Your task to perform on an android device: clear all cookies in the chrome app Image 0: 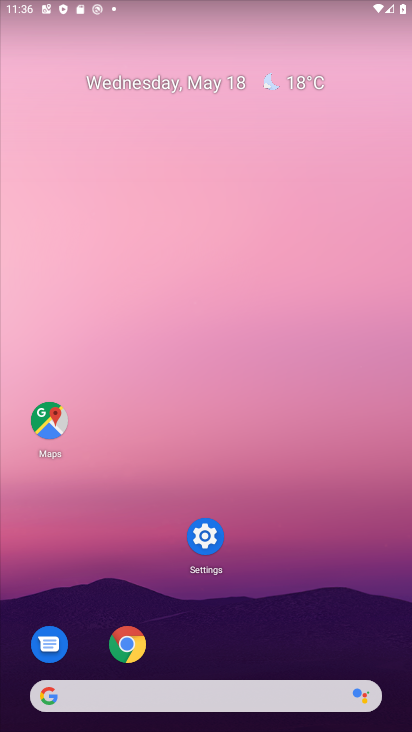
Step 0: click (134, 654)
Your task to perform on an android device: clear all cookies in the chrome app Image 1: 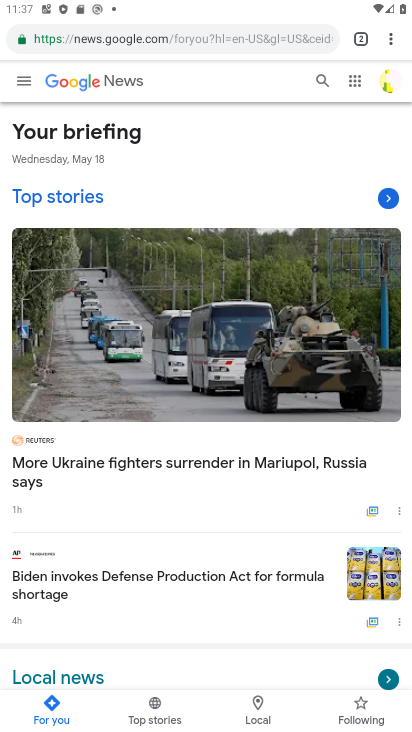
Step 1: drag from (392, 32) to (282, 226)
Your task to perform on an android device: clear all cookies in the chrome app Image 2: 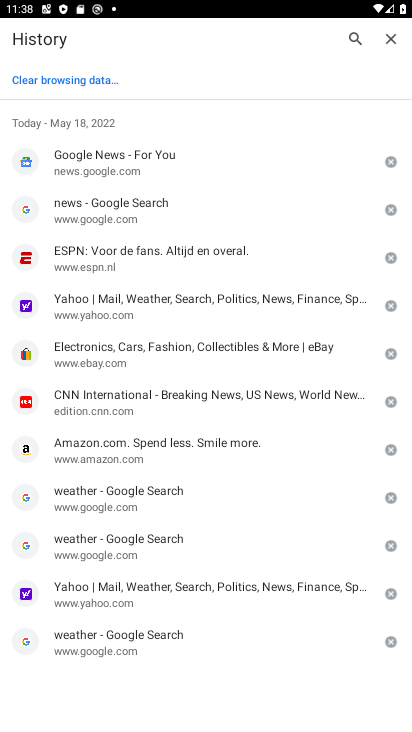
Step 2: click (88, 70)
Your task to perform on an android device: clear all cookies in the chrome app Image 3: 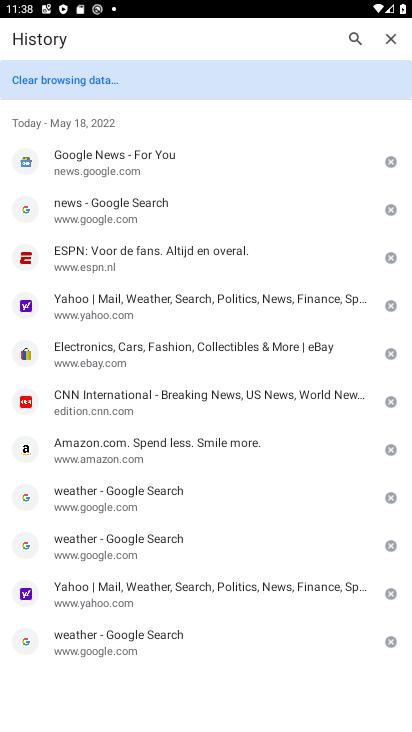
Step 3: click (83, 76)
Your task to perform on an android device: clear all cookies in the chrome app Image 4: 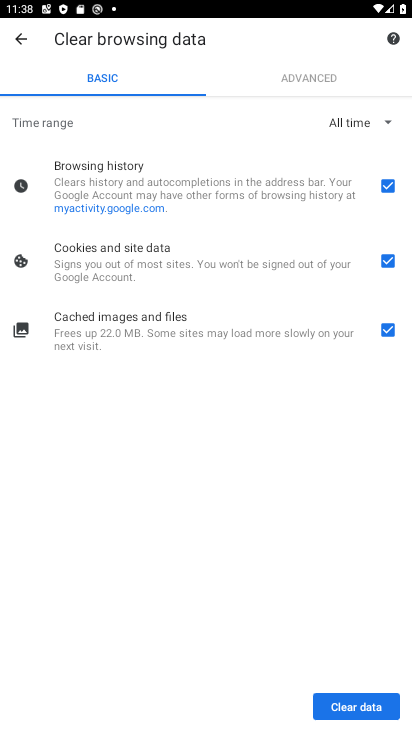
Step 4: click (374, 702)
Your task to perform on an android device: clear all cookies in the chrome app Image 5: 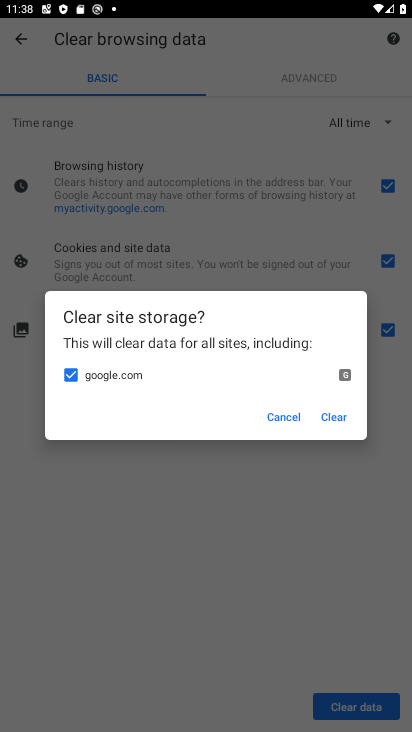
Step 5: click (341, 411)
Your task to perform on an android device: clear all cookies in the chrome app Image 6: 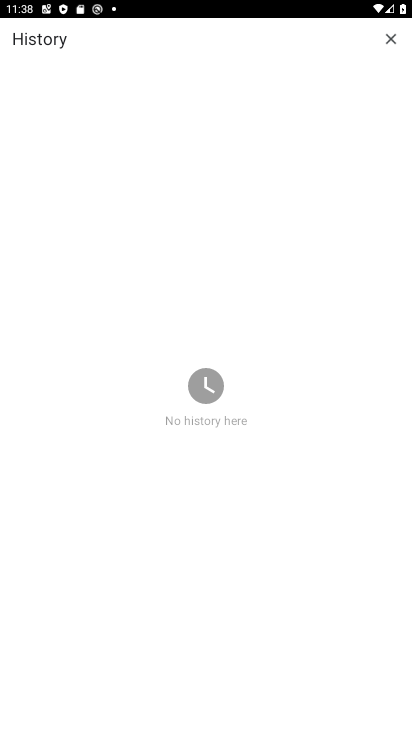
Step 6: task complete